Your task to perform on an android device: Open the calendar and show me this week's events Image 0: 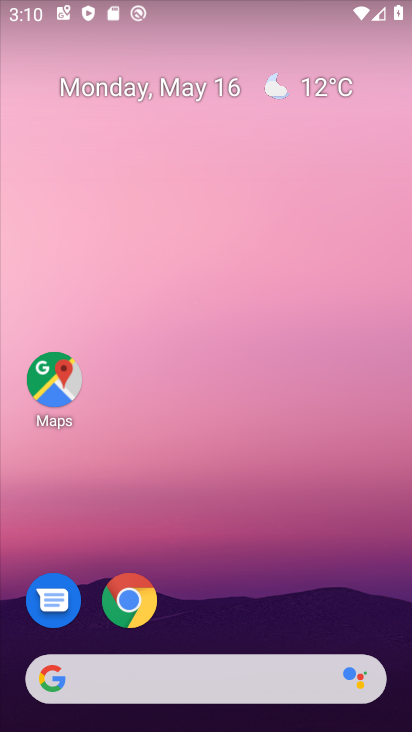
Step 0: drag from (211, 646) to (251, 2)
Your task to perform on an android device: Open the calendar and show me this week's events Image 1: 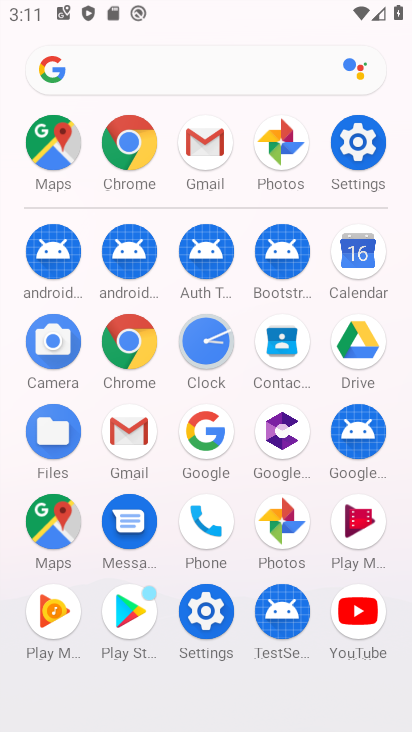
Step 1: click (353, 268)
Your task to perform on an android device: Open the calendar and show me this week's events Image 2: 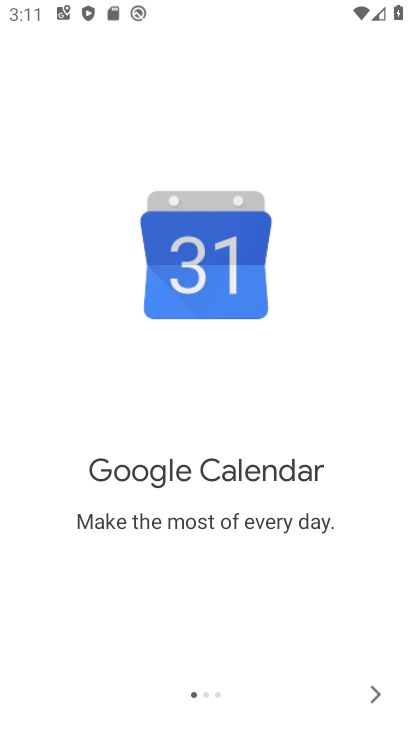
Step 2: click (368, 696)
Your task to perform on an android device: Open the calendar and show me this week's events Image 3: 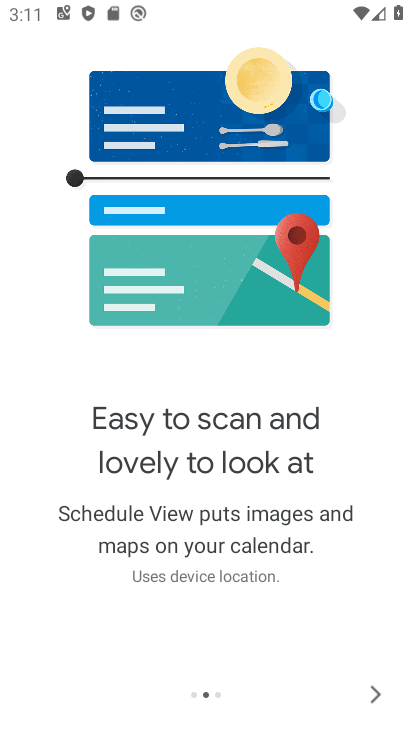
Step 3: click (377, 699)
Your task to perform on an android device: Open the calendar and show me this week's events Image 4: 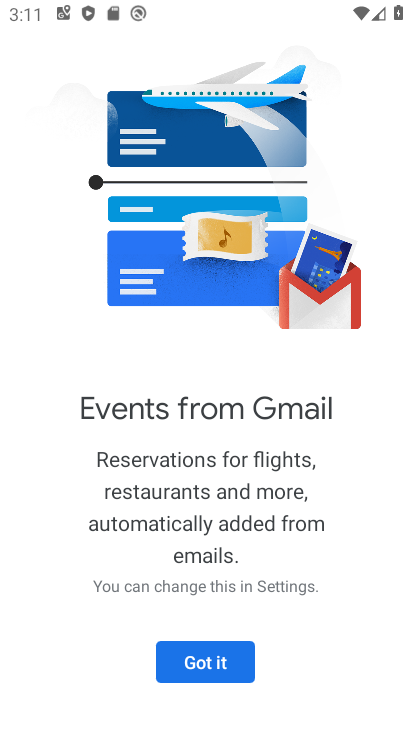
Step 4: click (213, 653)
Your task to perform on an android device: Open the calendar and show me this week's events Image 5: 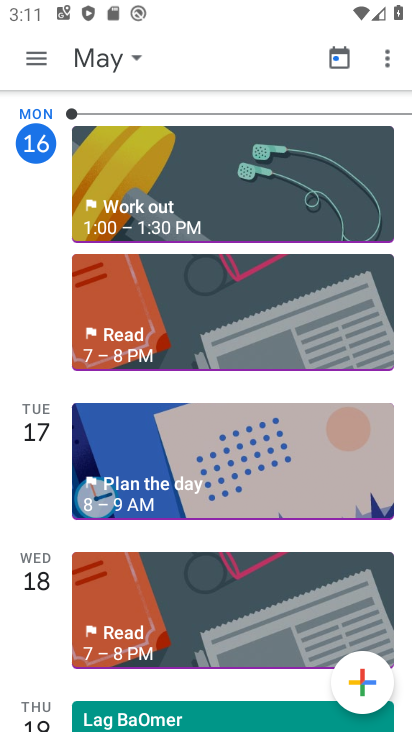
Step 5: click (43, 53)
Your task to perform on an android device: Open the calendar and show me this week's events Image 6: 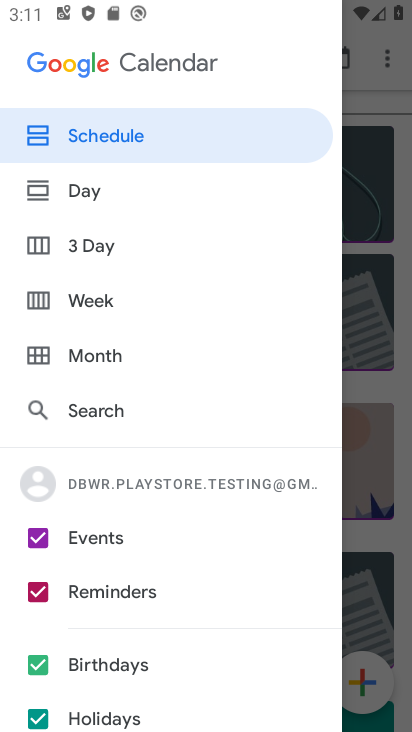
Step 6: click (95, 293)
Your task to perform on an android device: Open the calendar and show me this week's events Image 7: 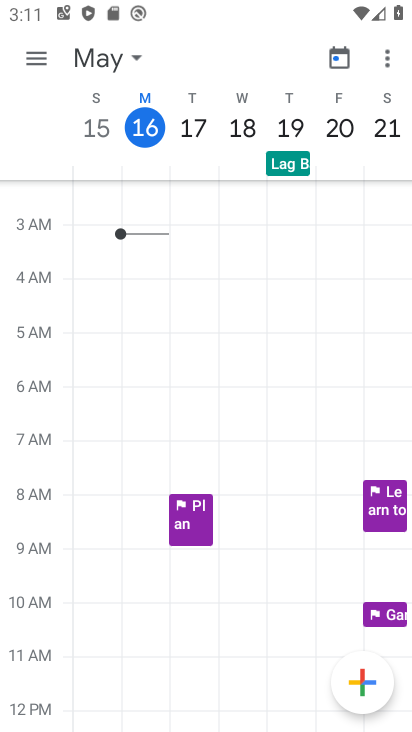
Step 7: task complete